Your task to perform on an android device: Open settings Image 0: 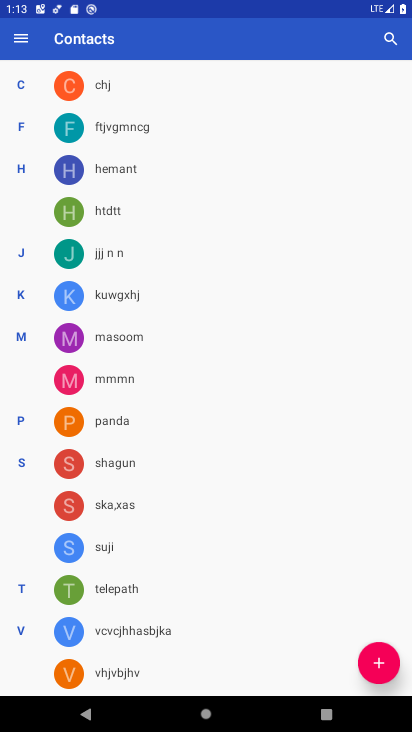
Step 0: press home button
Your task to perform on an android device: Open settings Image 1: 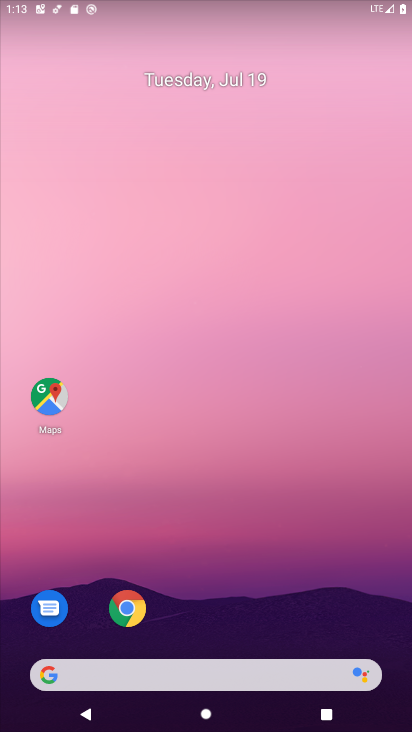
Step 1: drag from (284, 573) to (407, 12)
Your task to perform on an android device: Open settings Image 2: 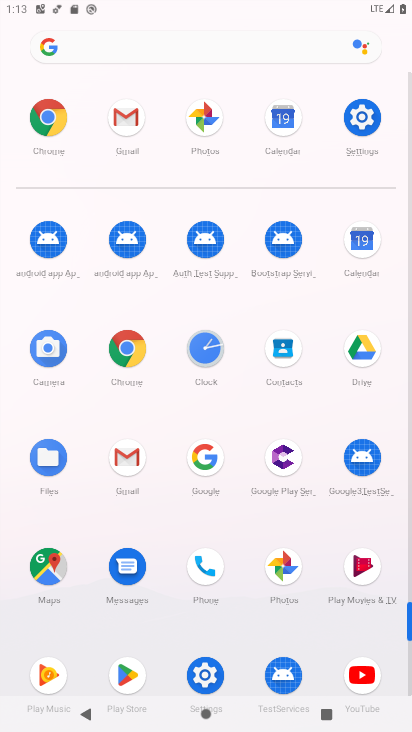
Step 2: click (367, 116)
Your task to perform on an android device: Open settings Image 3: 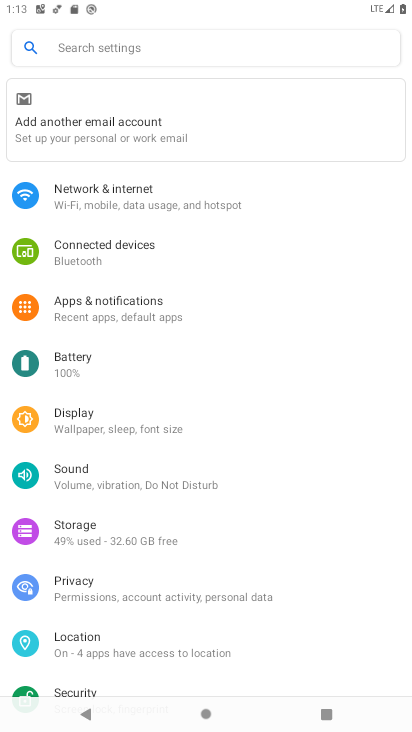
Step 3: task complete